Your task to perform on an android device: remove spam from my inbox in the gmail app Image 0: 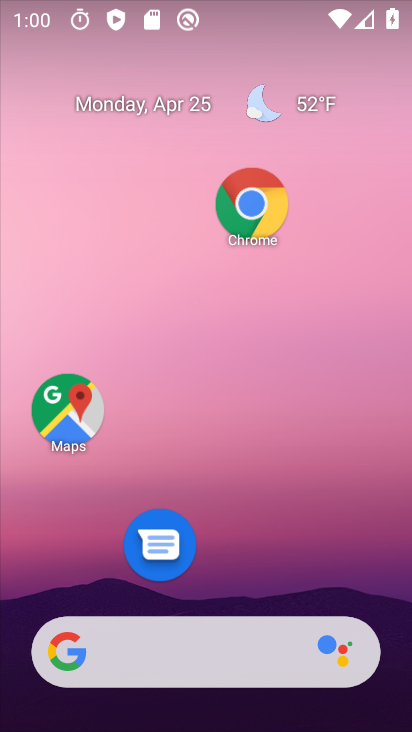
Step 0: drag from (321, 687) to (385, 131)
Your task to perform on an android device: remove spam from my inbox in the gmail app Image 1: 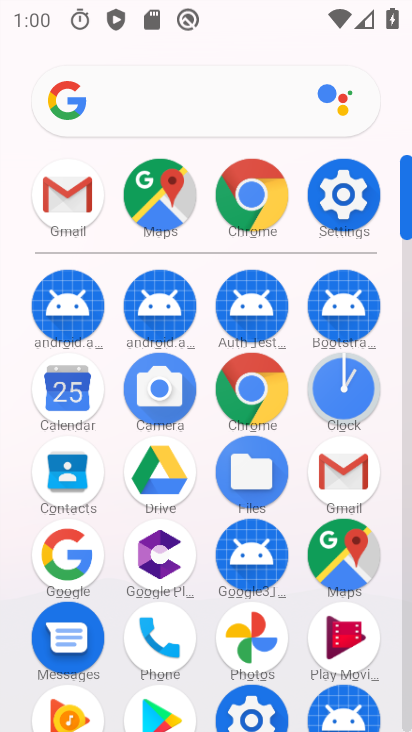
Step 1: click (70, 207)
Your task to perform on an android device: remove spam from my inbox in the gmail app Image 2: 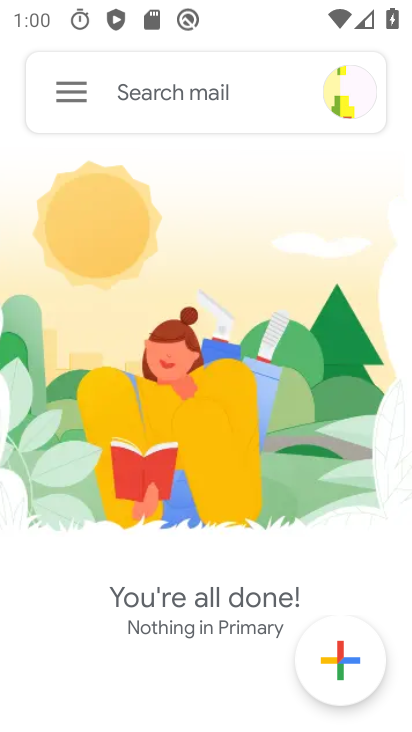
Step 2: click (73, 87)
Your task to perform on an android device: remove spam from my inbox in the gmail app Image 3: 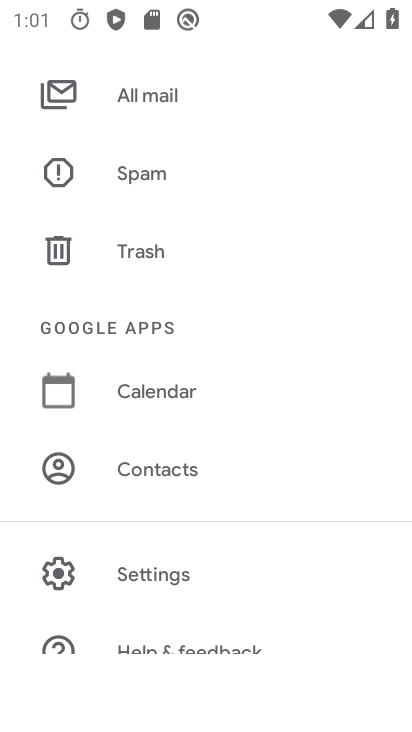
Step 3: click (110, 166)
Your task to perform on an android device: remove spam from my inbox in the gmail app Image 4: 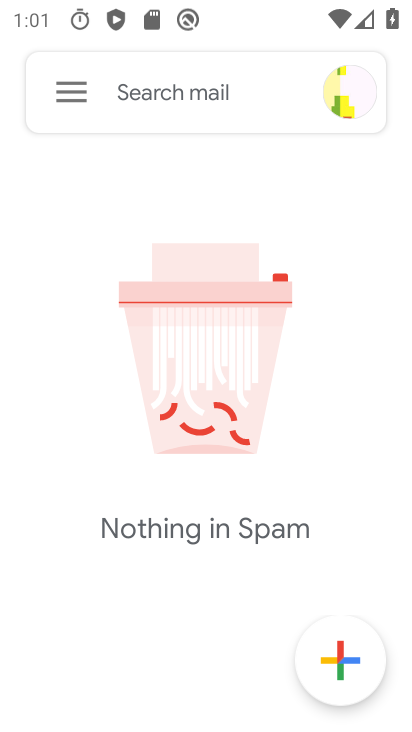
Step 4: task complete